Your task to perform on an android device: Go to network settings Image 0: 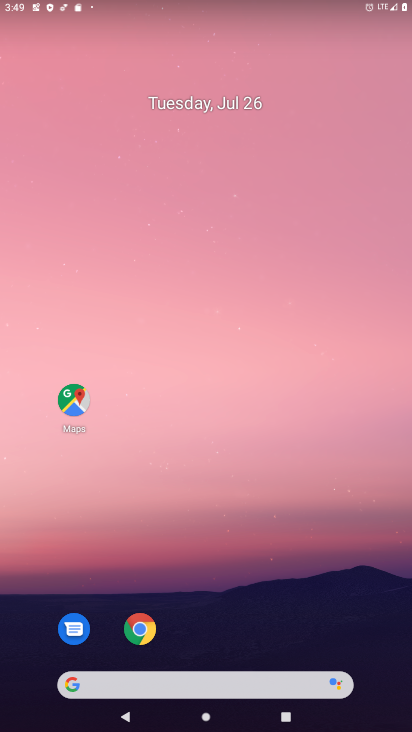
Step 0: drag from (235, 726) to (234, 145)
Your task to perform on an android device: Go to network settings Image 1: 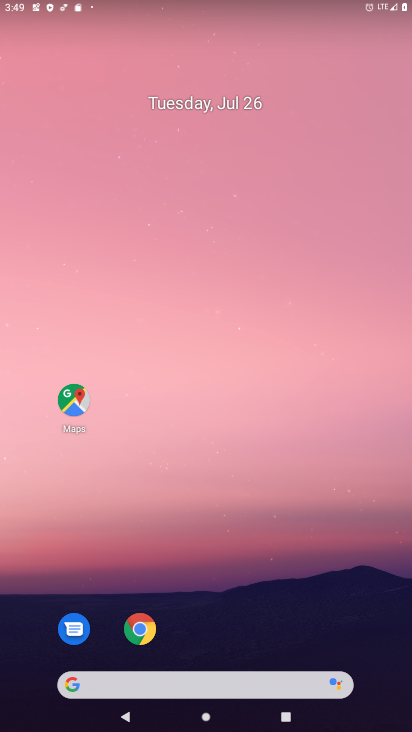
Step 1: drag from (225, 728) to (225, 211)
Your task to perform on an android device: Go to network settings Image 2: 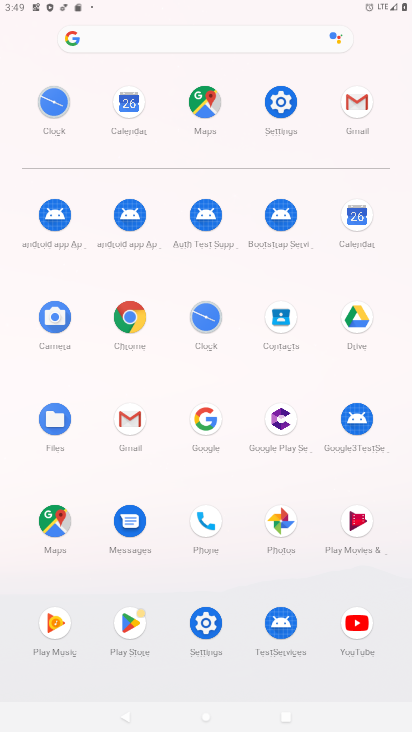
Step 2: click (282, 96)
Your task to perform on an android device: Go to network settings Image 3: 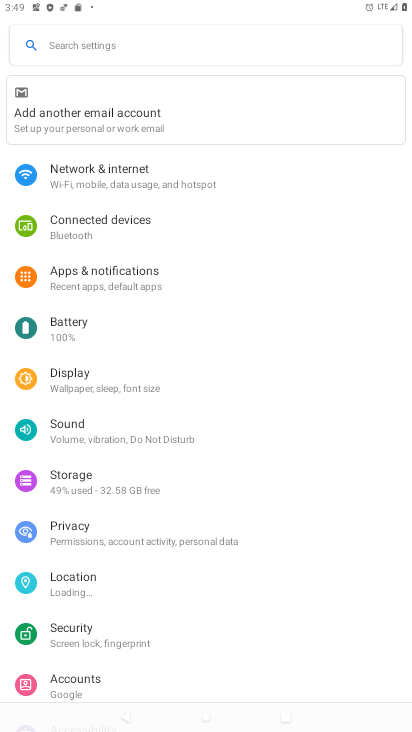
Step 3: click (117, 173)
Your task to perform on an android device: Go to network settings Image 4: 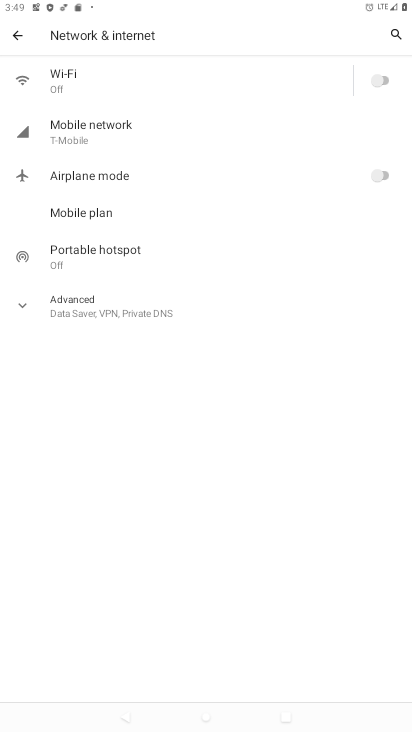
Step 4: click (77, 118)
Your task to perform on an android device: Go to network settings Image 5: 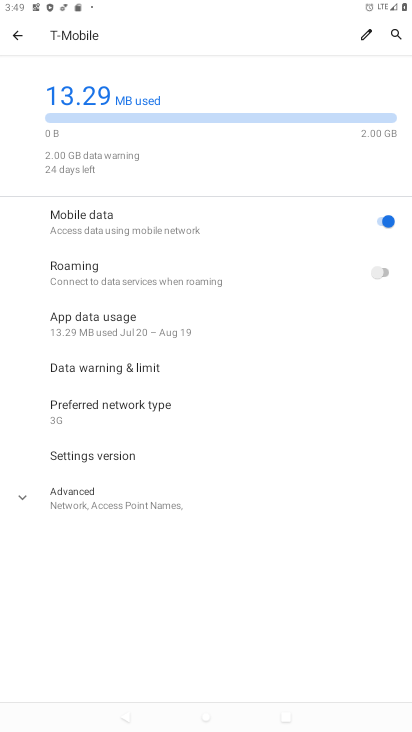
Step 5: task complete